Your task to perform on an android device: move a message to another label in the gmail app Image 0: 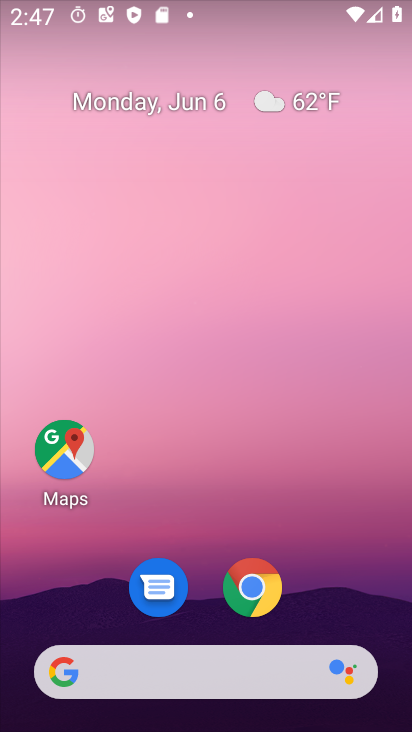
Step 0: drag from (300, 490) to (183, 13)
Your task to perform on an android device: move a message to another label in the gmail app Image 1: 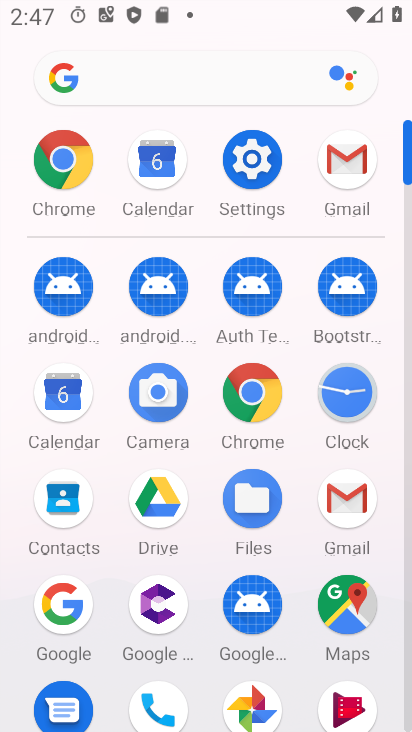
Step 1: drag from (18, 567) to (22, 213)
Your task to perform on an android device: move a message to another label in the gmail app Image 2: 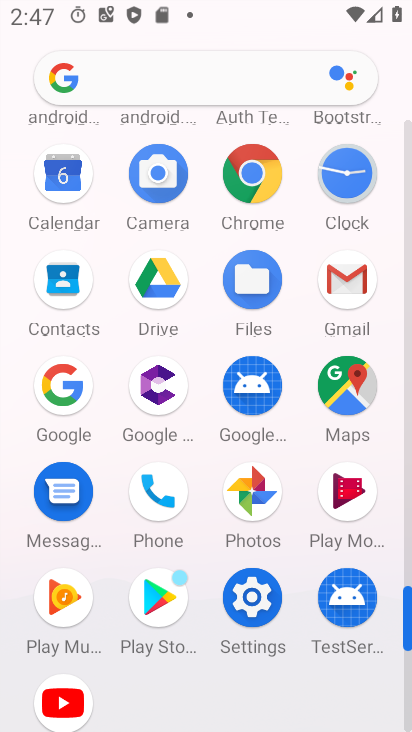
Step 2: click (343, 274)
Your task to perform on an android device: move a message to another label in the gmail app Image 3: 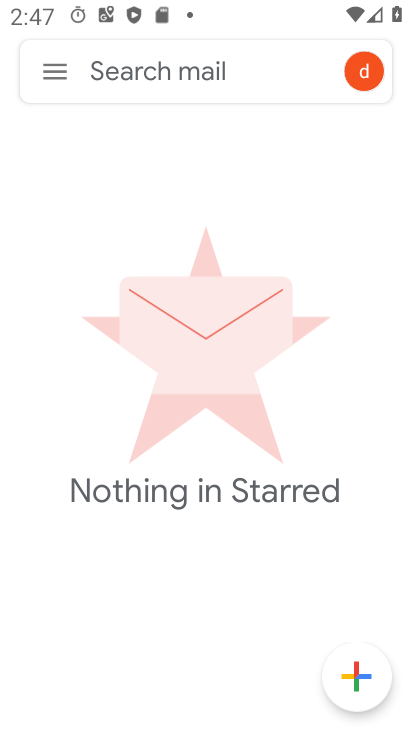
Step 3: click (40, 71)
Your task to perform on an android device: move a message to another label in the gmail app Image 4: 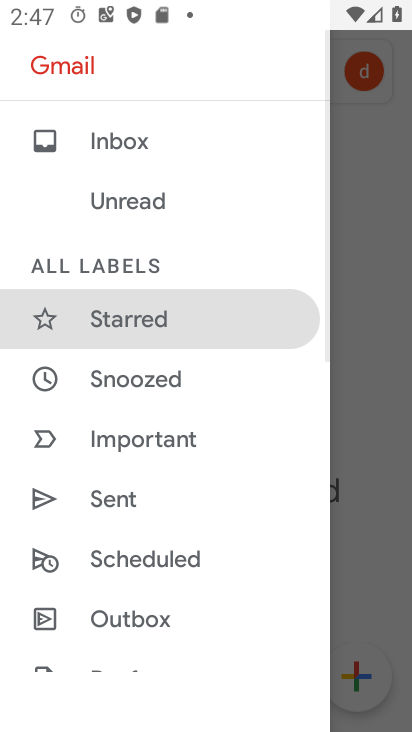
Step 4: drag from (223, 159) to (249, 570)
Your task to perform on an android device: move a message to another label in the gmail app Image 5: 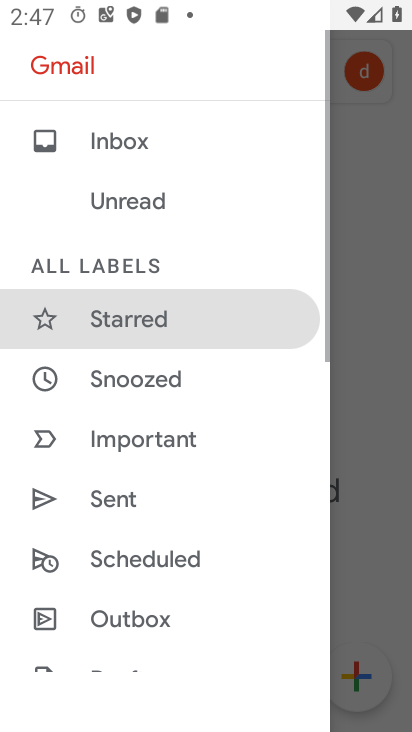
Step 5: click (144, 142)
Your task to perform on an android device: move a message to another label in the gmail app Image 6: 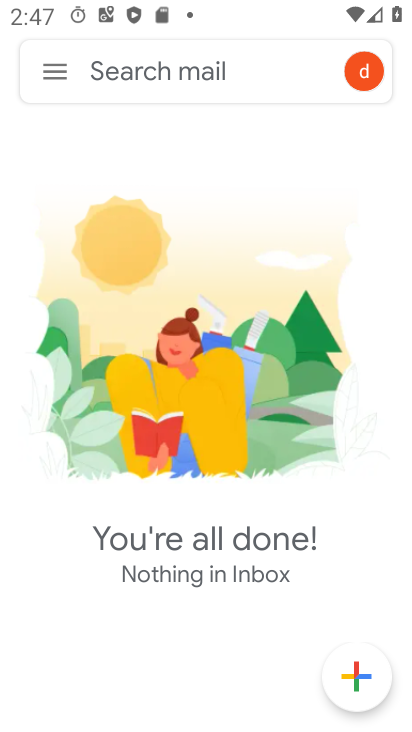
Step 6: click (36, 51)
Your task to perform on an android device: move a message to another label in the gmail app Image 7: 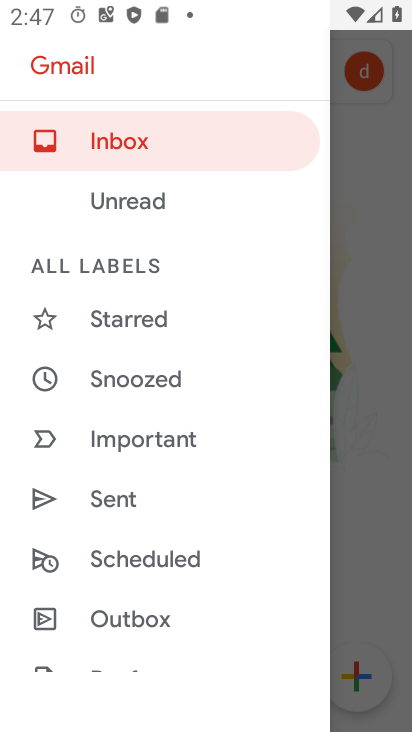
Step 7: click (172, 385)
Your task to perform on an android device: move a message to another label in the gmail app Image 8: 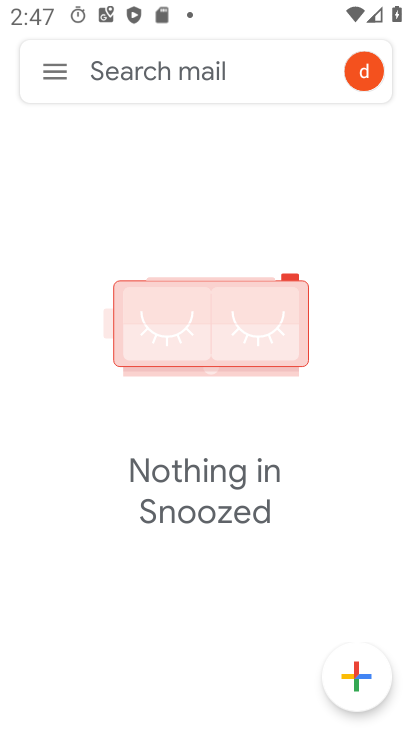
Step 8: click (59, 72)
Your task to perform on an android device: move a message to another label in the gmail app Image 9: 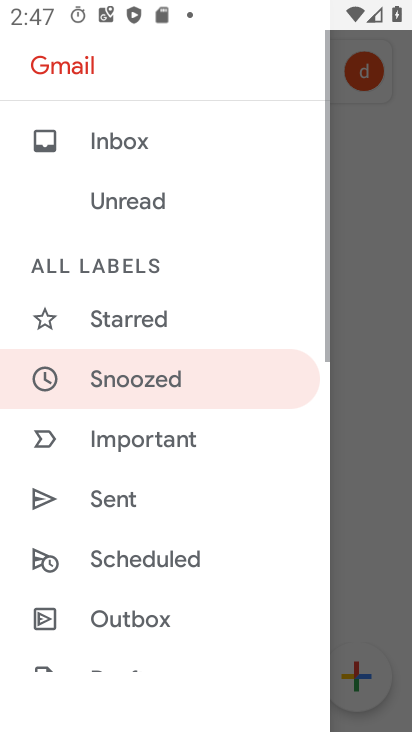
Step 9: drag from (183, 590) to (195, 154)
Your task to perform on an android device: move a message to another label in the gmail app Image 10: 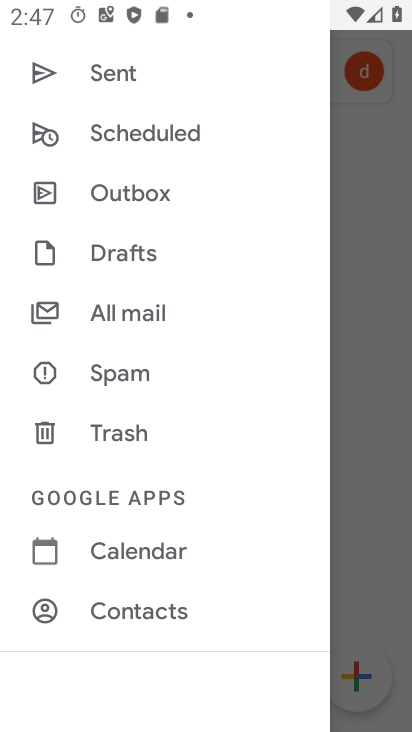
Step 10: click (157, 317)
Your task to perform on an android device: move a message to another label in the gmail app Image 11: 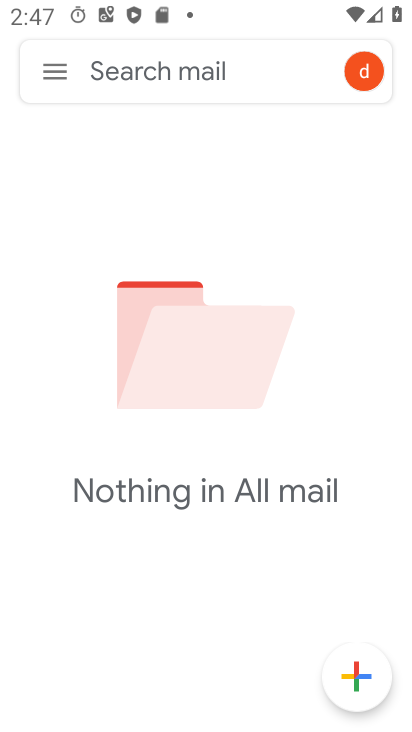
Step 11: task complete